Your task to perform on an android device: open app "Booking.com: Hotels and more" (install if not already installed) and enter user name: "misting@outlook.com" and password: "blandly" Image 0: 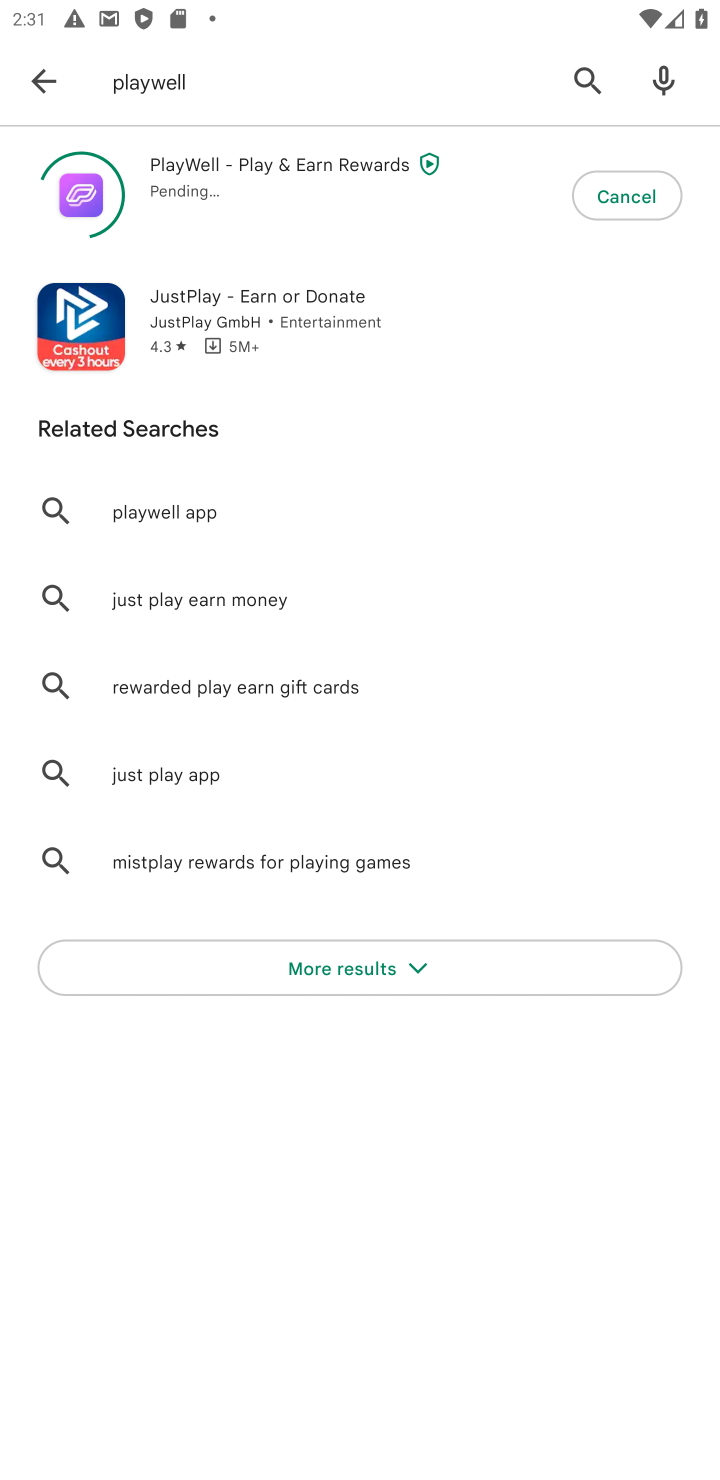
Step 0: press home button
Your task to perform on an android device: open app "Booking.com: Hotels and more" (install if not already installed) and enter user name: "misting@outlook.com" and password: "blandly" Image 1: 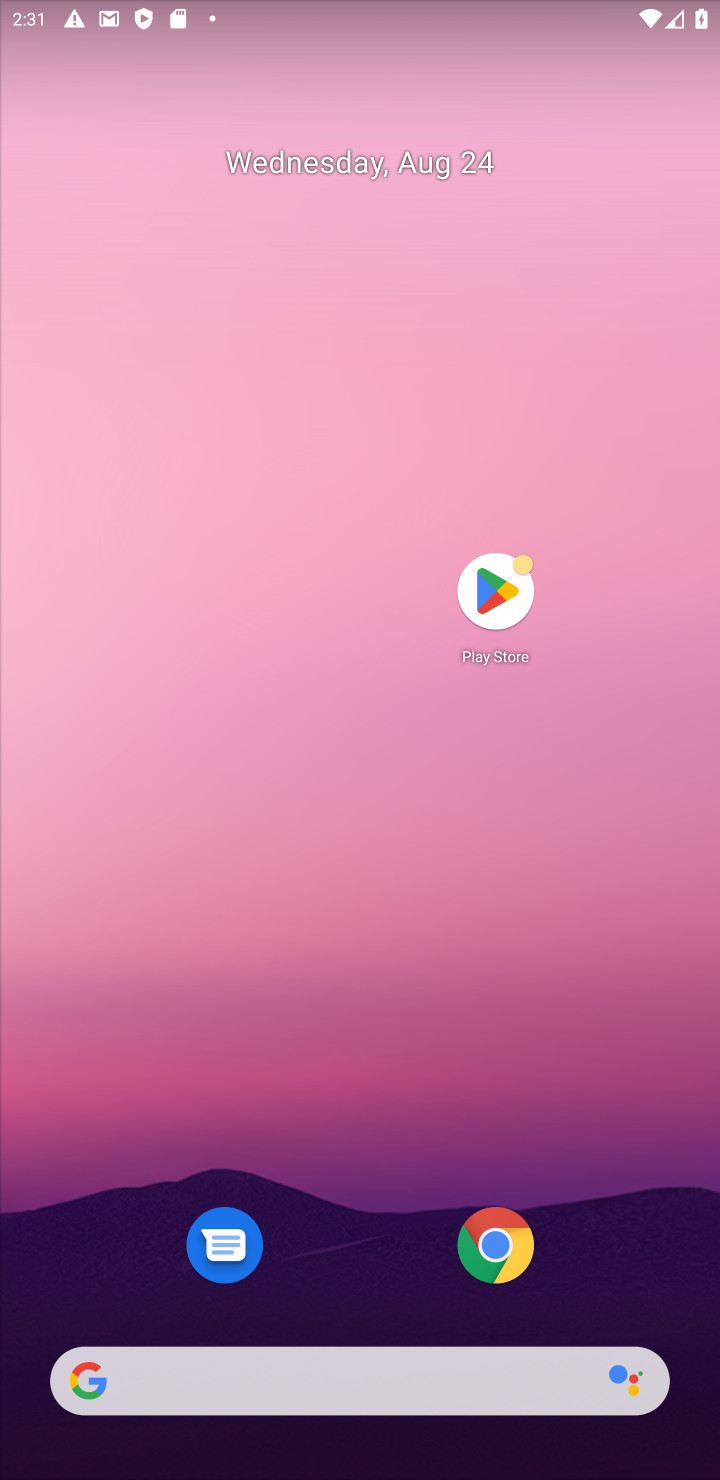
Step 1: click (493, 576)
Your task to perform on an android device: open app "Booking.com: Hotels and more" (install if not already installed) and enter user name: "misting@outlook.com" and password: "blandly" Image 2: 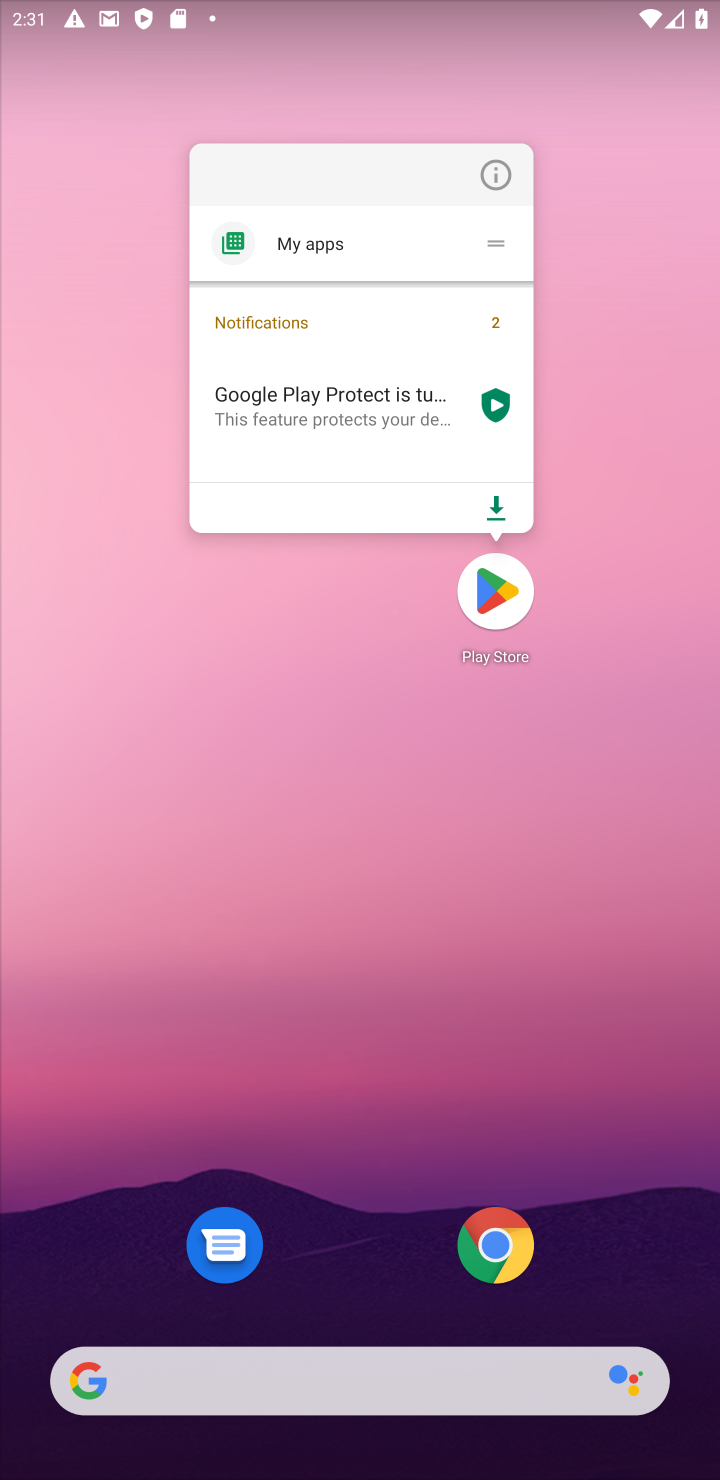
Step 2: click (493, 578)
Your task to perform on an android device: open app "Booking.com: Hotels and more" (install if not already installed) and enter user name: "misting@outlook.com" and password: "blandly" Image 3: 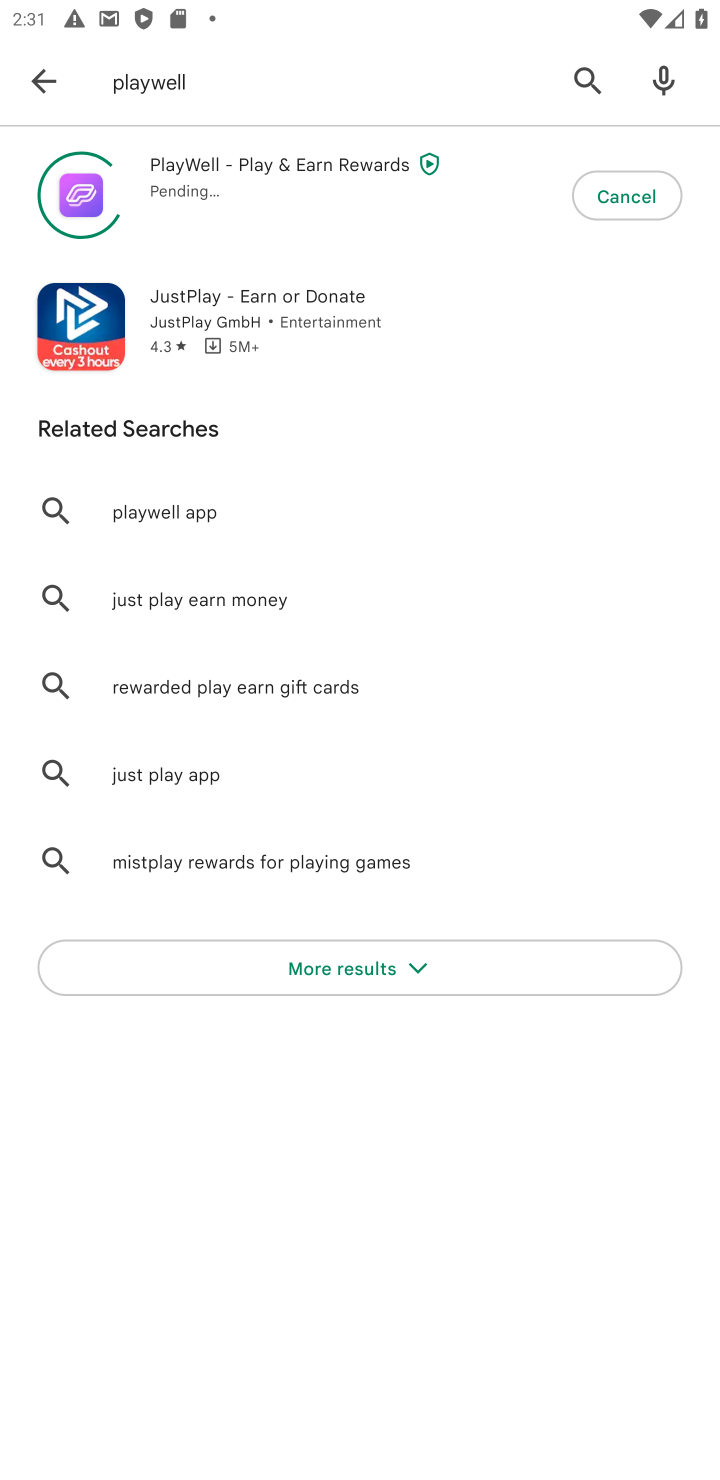
Step 3: click (590, 80)
Your task to perform on an android device: open app "Booking.com: Hotels and more" (install if not already installed) and enter user name: "misting@outlook.com" and password: "blandly" Image 4: 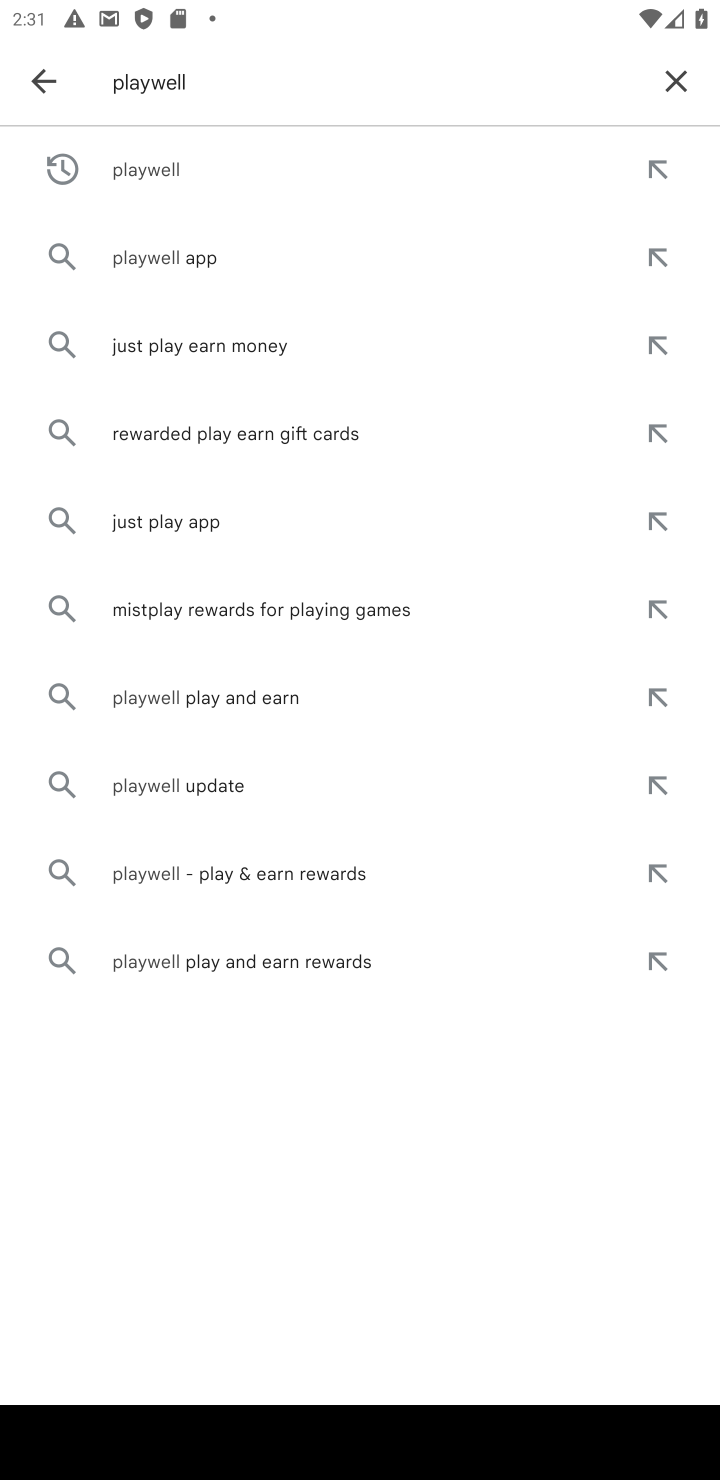
Step 4: click (670, 78)
Your task to perform on an android device: open app "Booking.com: Hotels and more" (install if not already installed) and enter user name: "misting@outlook.com" and password: "blandly" Image 5: 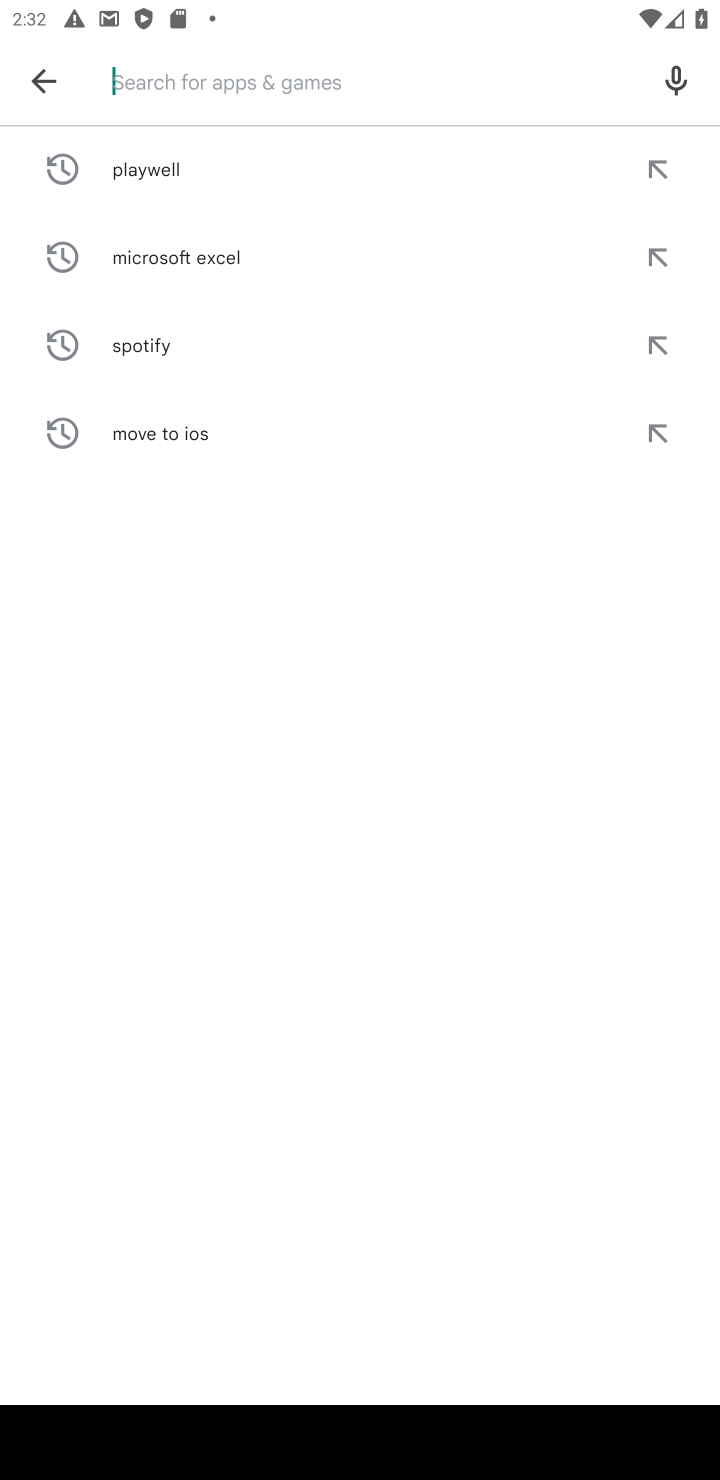
Step 5: click (169, 174)
Your task to perform on an android device: open app "Booking.com: Hotels and more" (install if not already installed) and enter user name: "misting@outlook.com" and password: "blandly" Image 6: 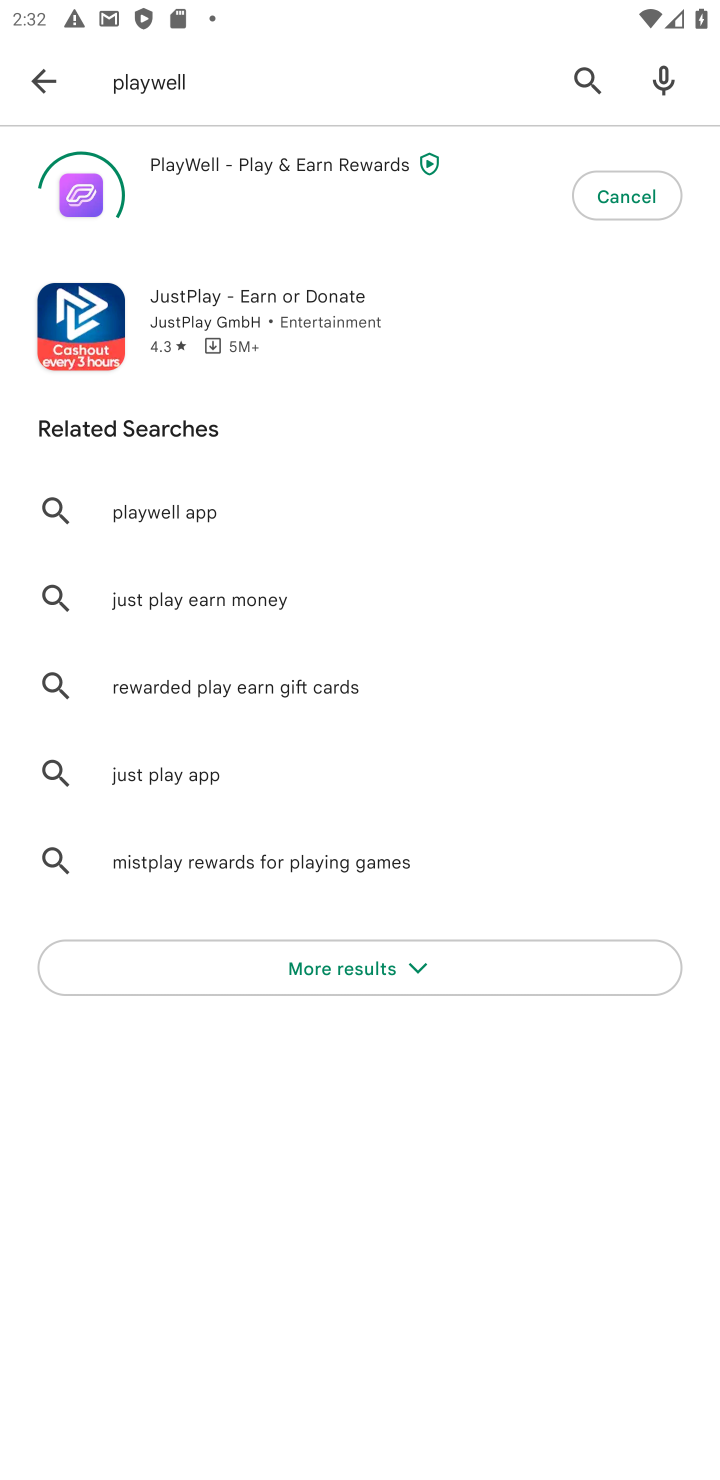
Step 6: click (585, 81)
Your task to perform on an android device: open app "Booking.com: Hotels and more" (install if not already installed) and enter user name: "misting@outlook.com" and password: "blandly" Image 7: 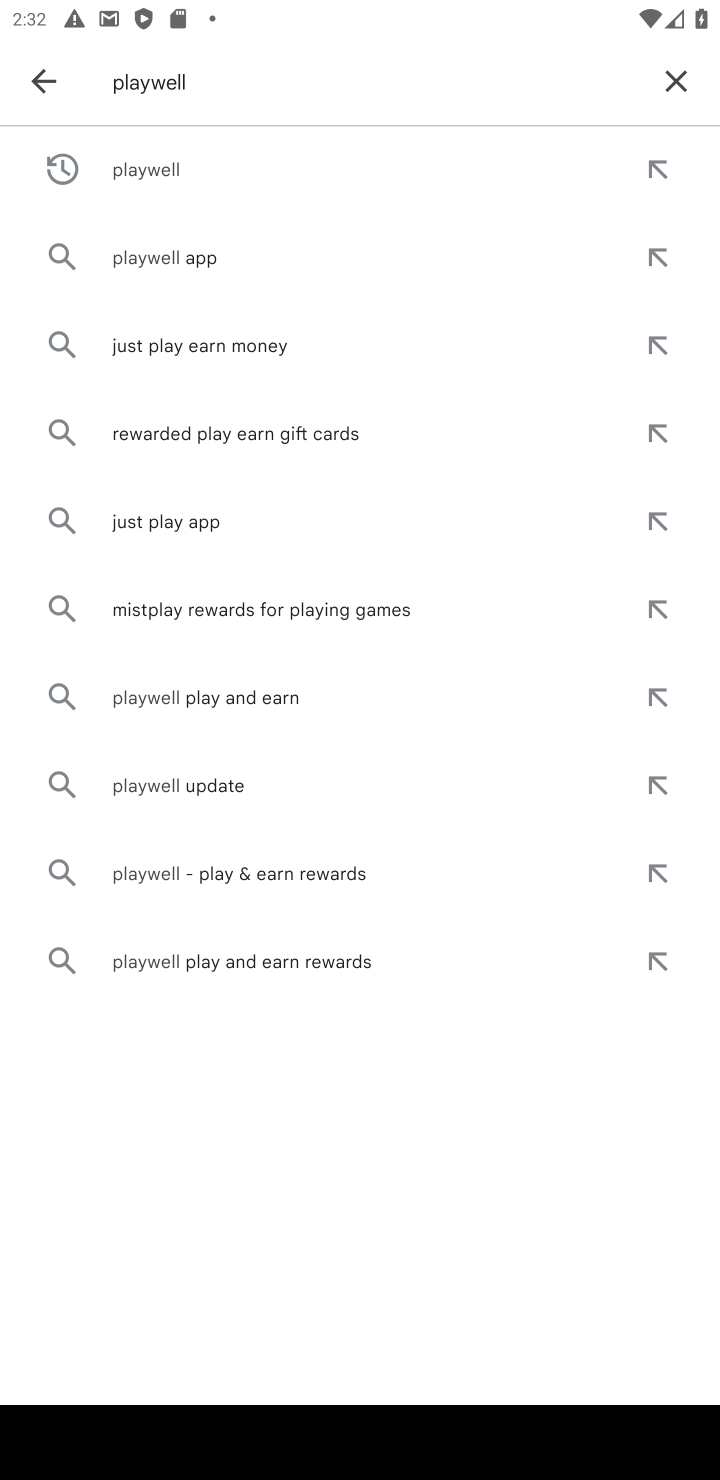
Step 7: type "Booking.com: Hotels and more"
Your task to perform on an android device: open app "Booking.com: Hotels and more" (install if not already installed) and enter user name: "misting@outlook.com" and password: "blandly" Image 8: 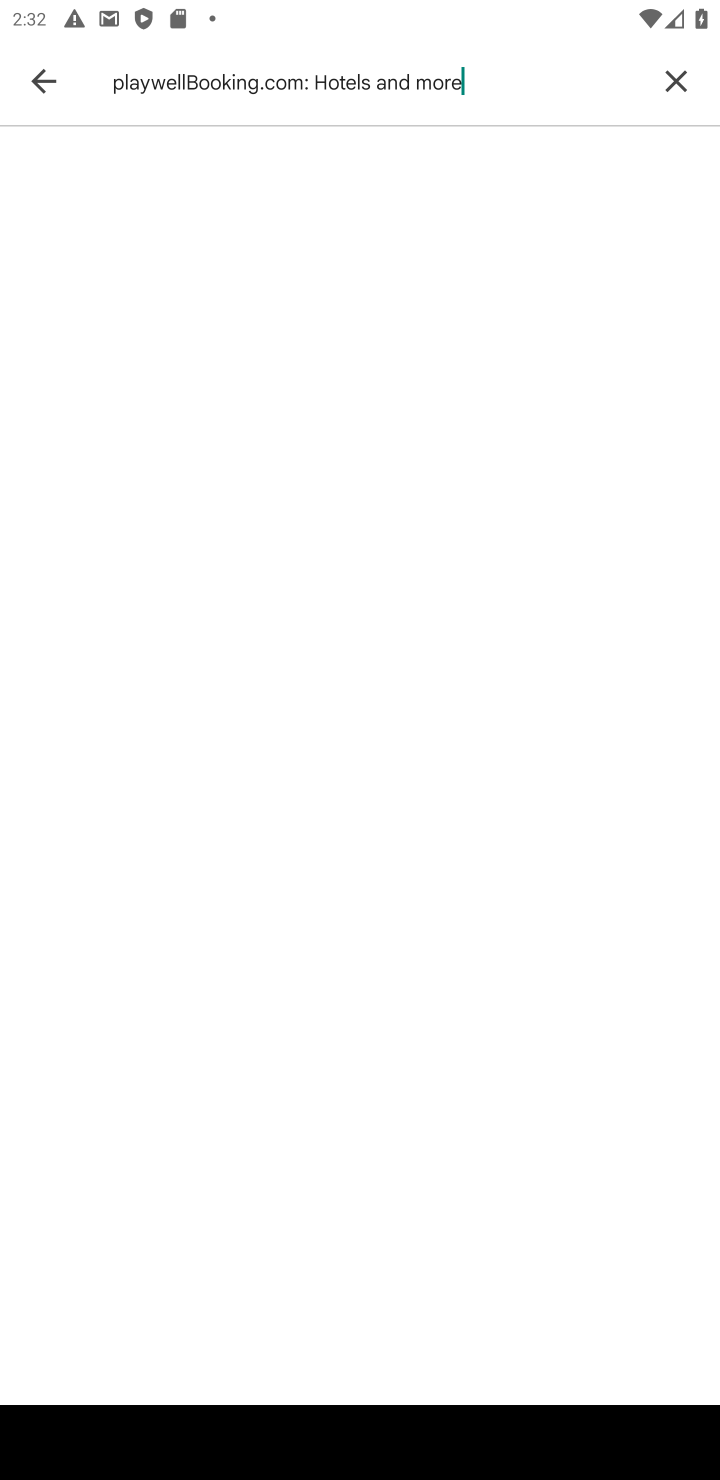
Step 8: click (668, 80)
Your task to perform on an android device: open app "Booking.com: Hotels and more" (install if not already installed) and enter user name: "misting@outlook.com" and password: "blandly" Image 9: 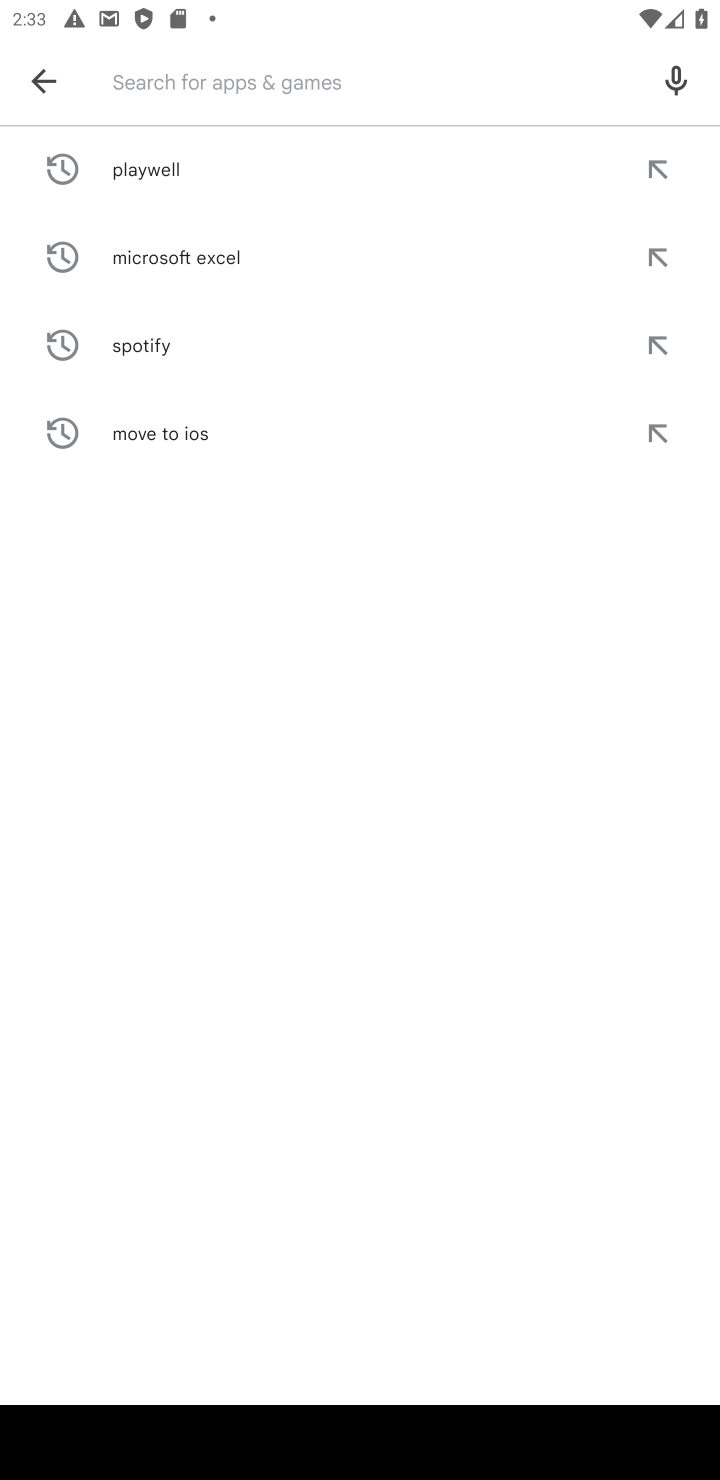
Step 9: type "Booking.com: Hotels and more"
Your task to perform on an android device: open app "Booking.com: Hotels and more" (install if not already installed) and enter user name: "misting@outlook.com" and password: "blandly" Image 10: 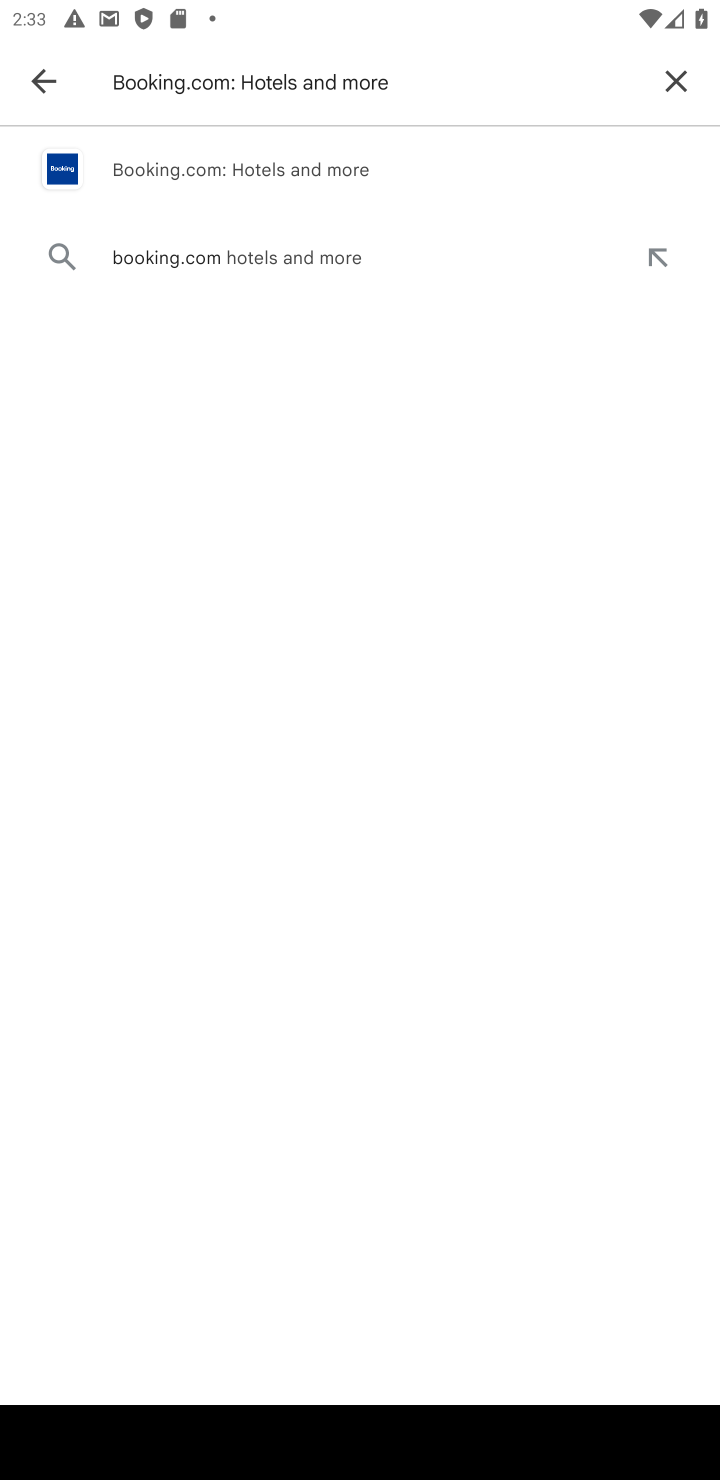
Step 10: click (197, 176)
Your task to perform on an android device: open app "Booking.com: Hotels and more" (install if not already installed) and enter user name: "misting@outlook.com" and password: "blandly" Image 11: 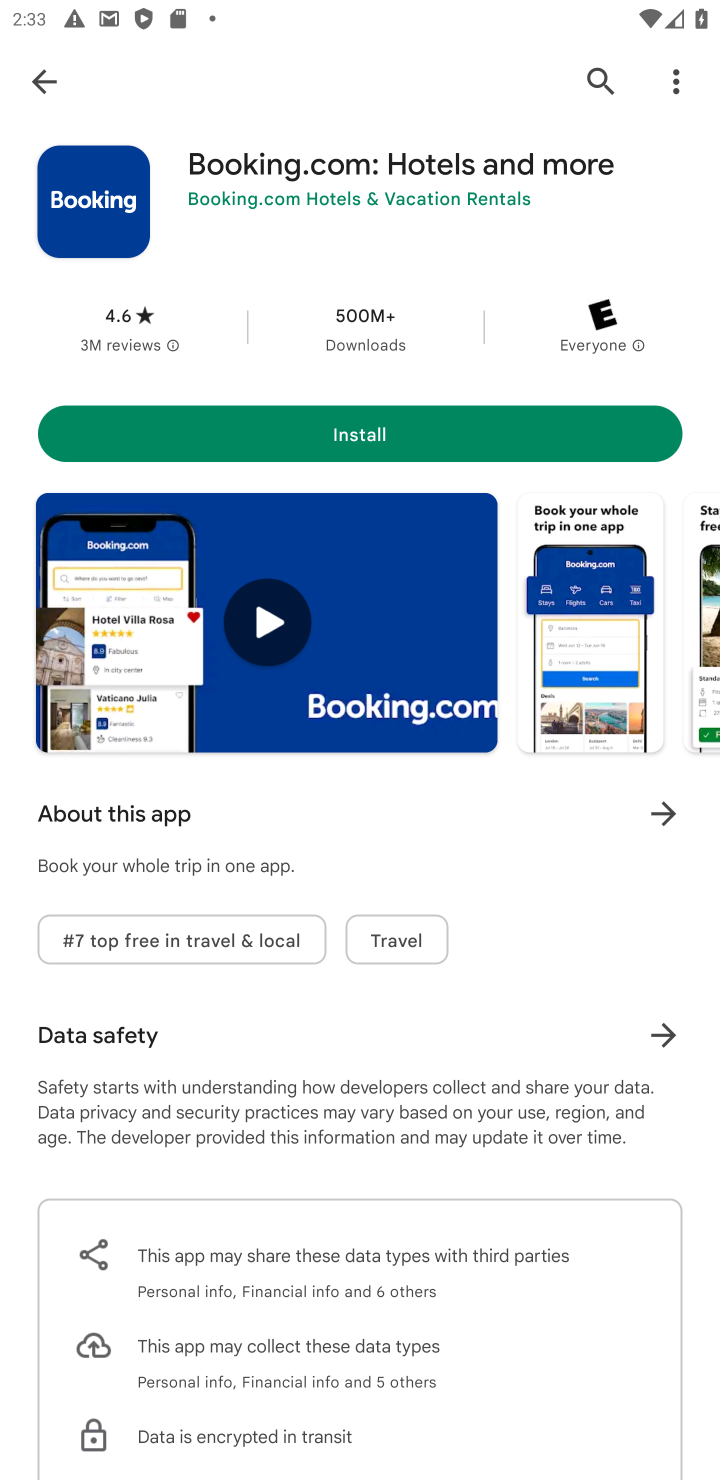
Step 11: click (397, 450)
Your task to perform on an android device: open app "Booking.com: Hotels and more" (install if not already installed) and enter user name: "misting@outlook.com" and password: "blandly" Image 12: 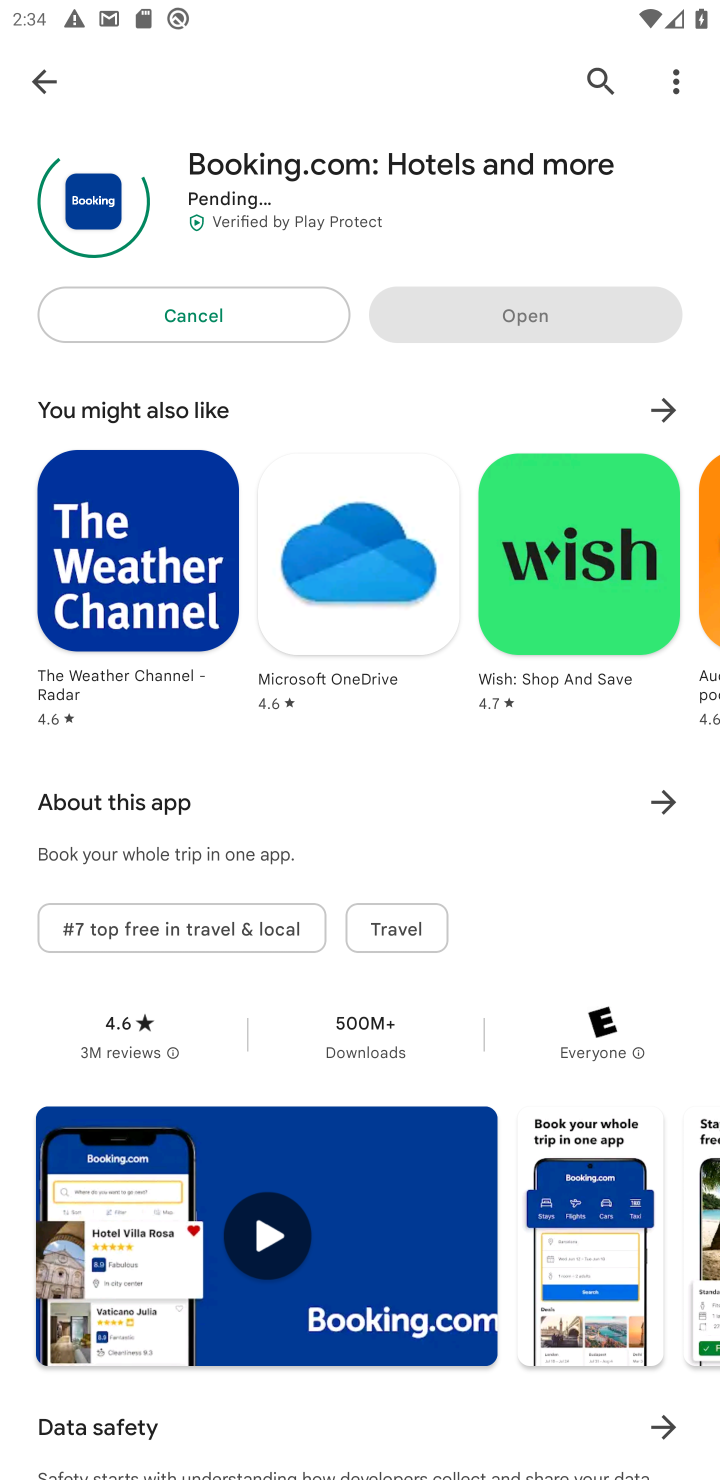
Step 12: task complete